Your task to perform on an android device: move an email to a new category in the gmail app Image 0: 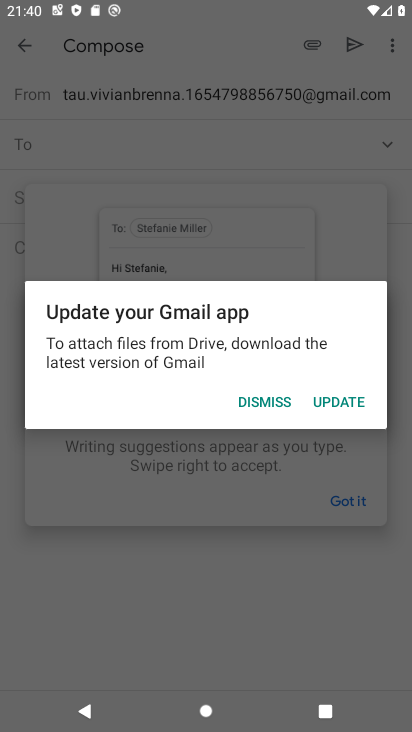
Step 0: press home button
Your task to perform on an android device: move an email to a new category in the gmail app Image 1: 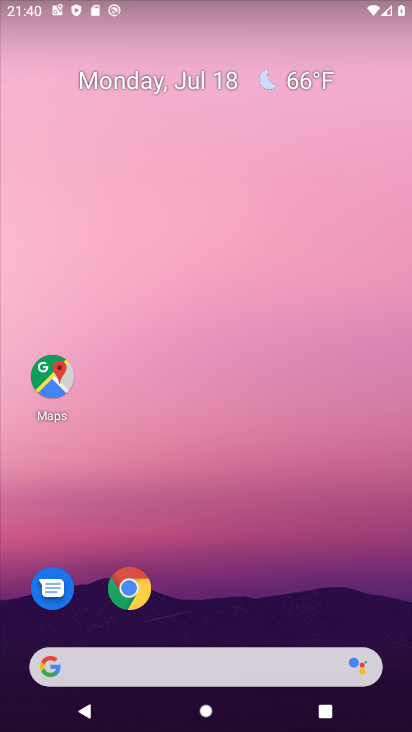
Step 1: drag from (183, 659) to (312, 93)
Your task to perform on an android device: move an email to a new category in the gmail app Image 2: 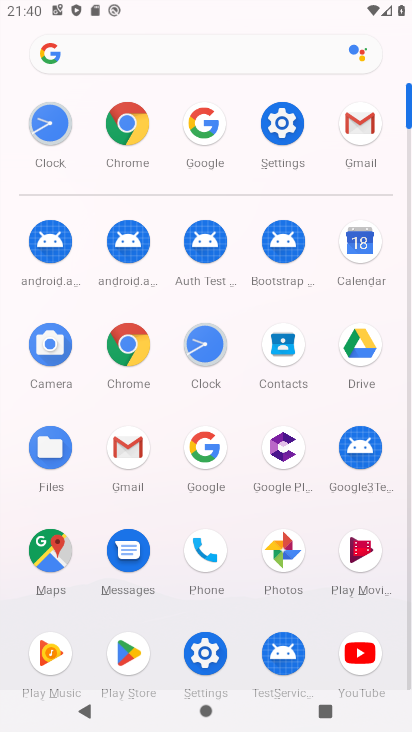
Step 2: click (357, 129)
Your task to perform on an android device: move an email to a new category in the gmail app Image 3: 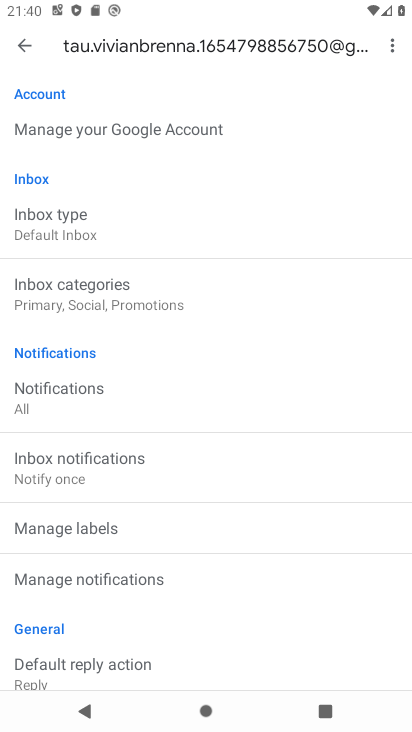
Step 3: click (27, 43)
Your task to perform on an android device: move an email to a new category in the gmail app Image 4: 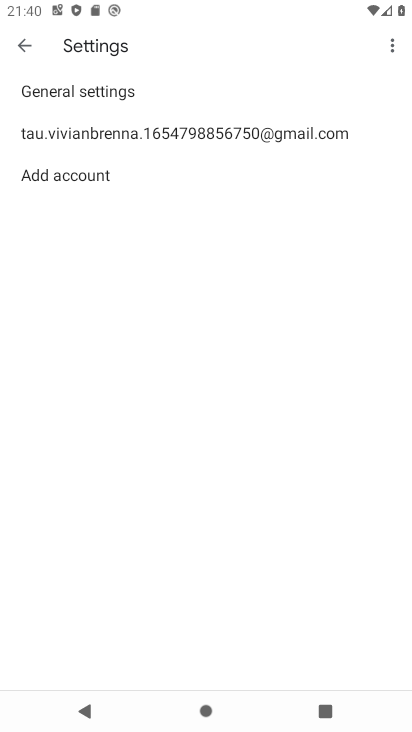
Step 4: click (28, 43)
Your task to perform on an android device: move an email to a new category in the gmail app Image 5: 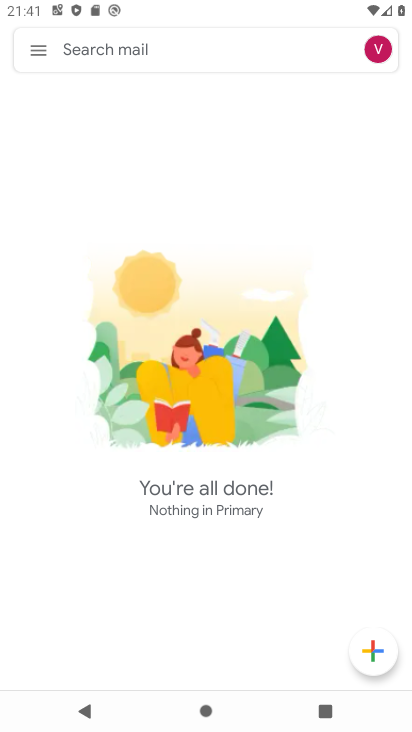
Step 5: task complete